Your task to perform on an android device: Search for pizza restaurants on Maps Image 0: 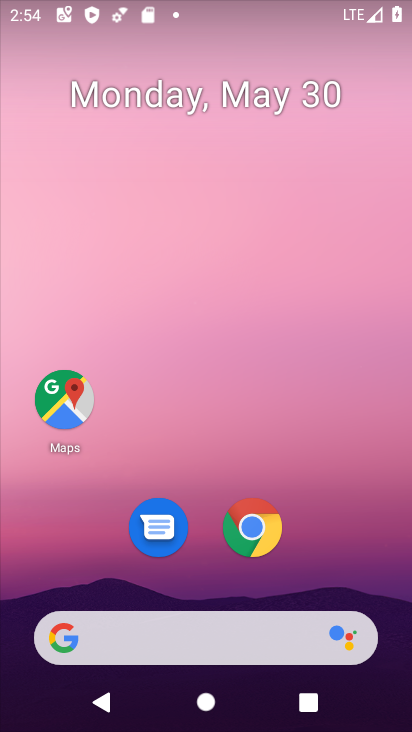
Step 0: drag from (343, 574) to (288, 138)
Your task to perform on an android device: Search for pizza restaurants on Maps Image 1: 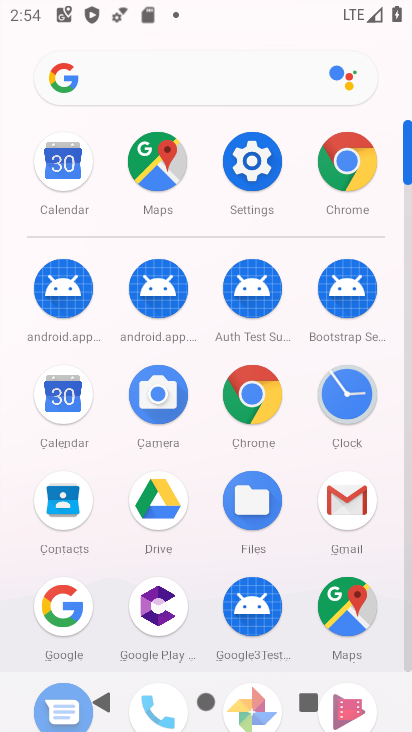
Step 1: click (337, 600)
Your task to perform on an android device: Search for pizza restaurants on Maps Image 2: 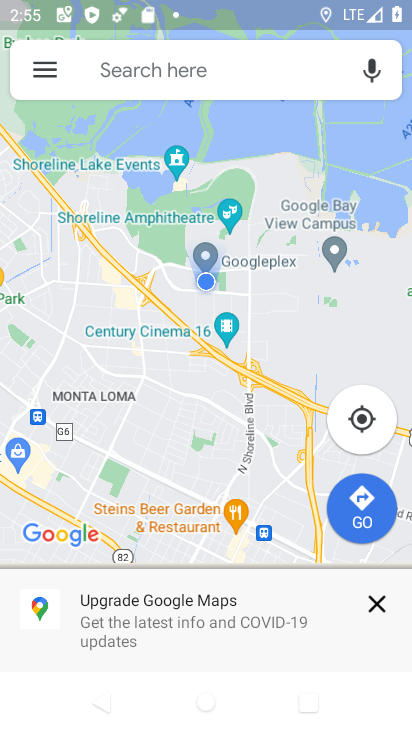
Step 2: click (217, 75)
Your task to perform on an android device: Search for pizza restaurants on Maps Image 3: 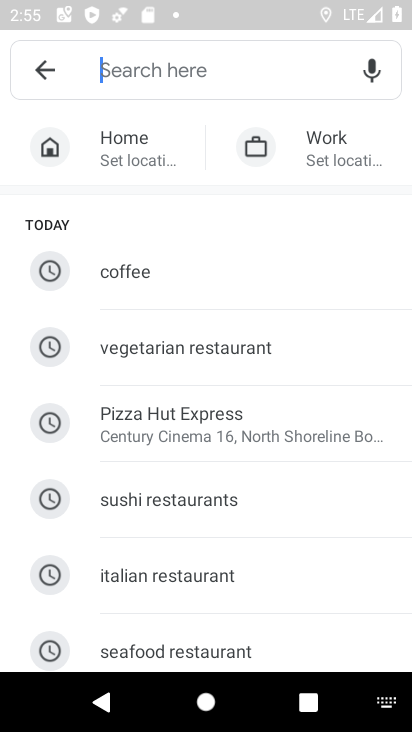
Step 3: type " pizza restaurants"
Your task to perform on an android device: Search for pizza restaurants on Maps Image 4: 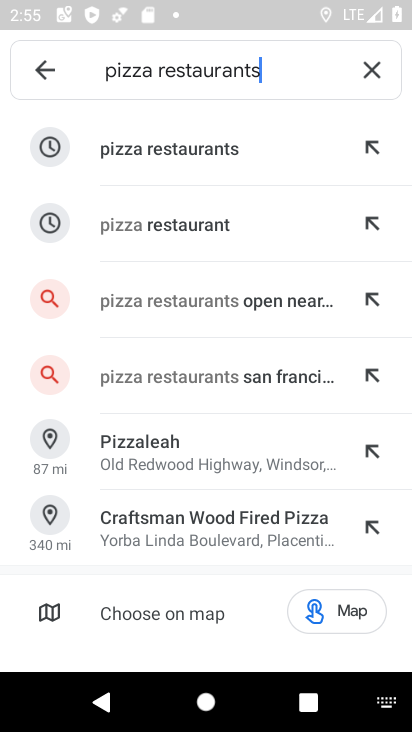
Step 4: click (199, 148)
Your task to perform on an android device: Search for pizza restaurants on Maps Image 5: 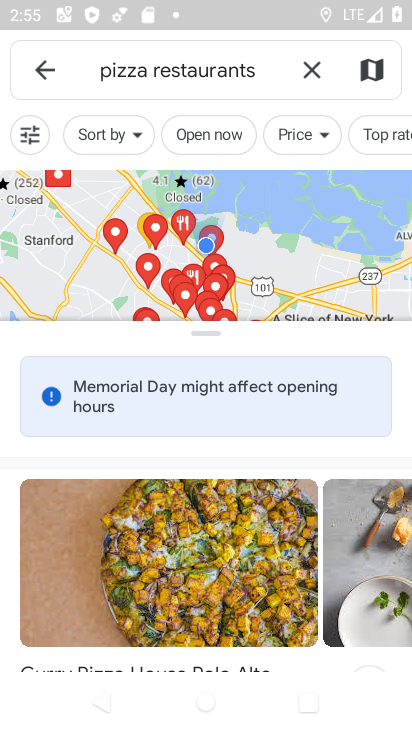
Step 5: task complete